Your task to perform on an android device: refresh tabs in the chrome app Image 0: 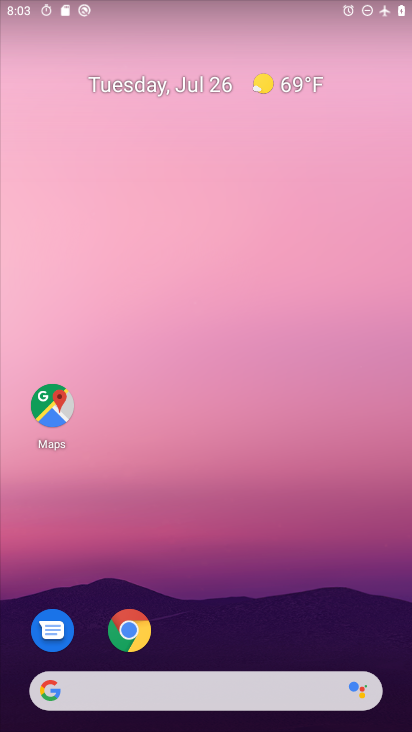
Step 0: drag from (269, 620) to (278, 158)
Your task to perform on an android device: refresh tabs in the chrome app Image 1: 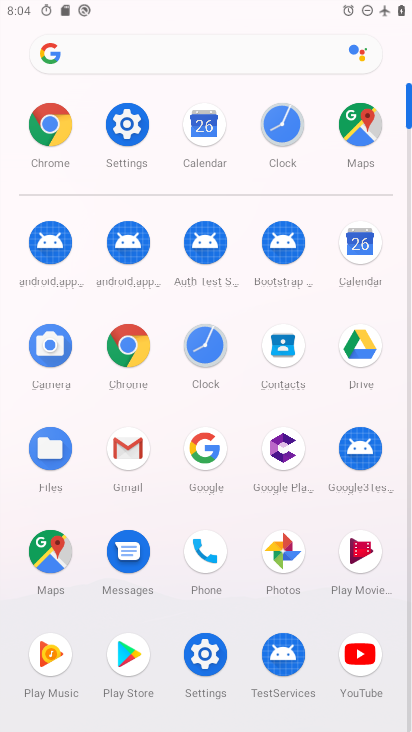
Step 1: click (130, 367)
Your task to perform on an android device: refresh tabs in the chrome app Image 2: 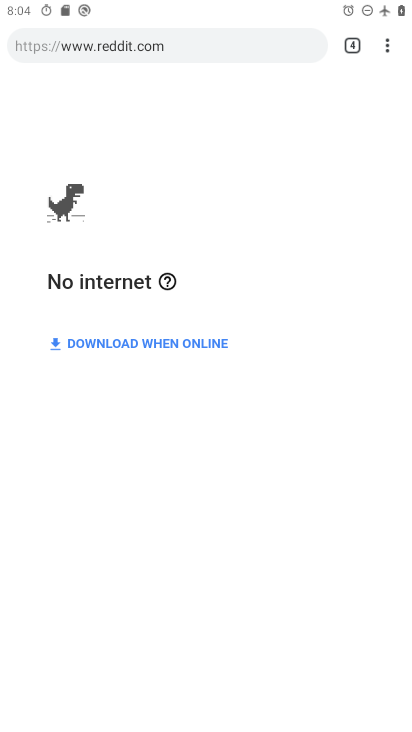
Step 2: click (388, 48)
Your task to perform on an android device: refresh tabs in the chrome app Image 3: 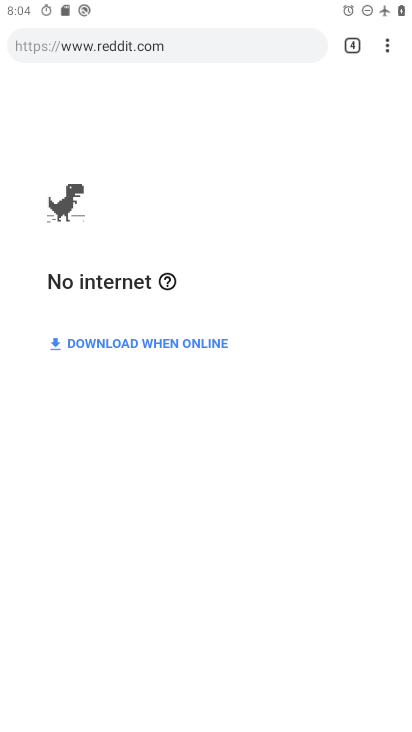
Step 3: click (386, 51)
Your task to perform on an android device: refresh tabs in the chrome app Image 4: 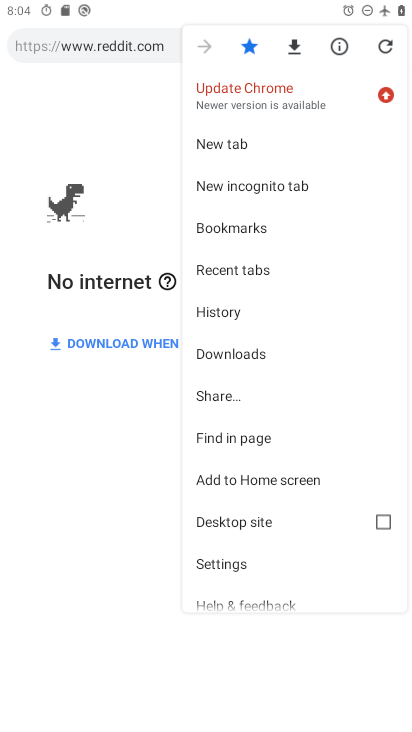
Step 4: click (384, 47)
Your task to perform on an android device: refresh tabs in the chrome app Image 5: 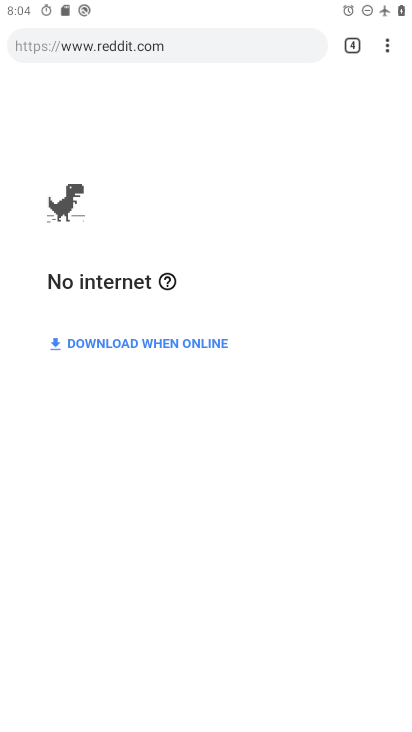
Step 5: task complete